Your task to perform on an android device: Open location settings Image 0: 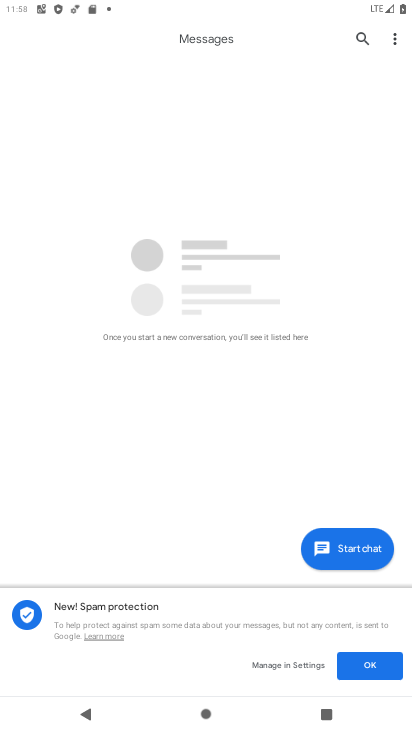
Step 0: press home button
Your task to perform on an android device: Open location settings Image 1: 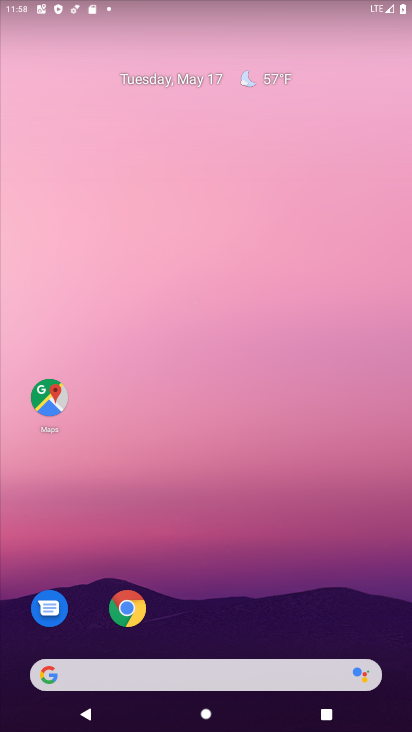
Step 1: drag from (273, 517) to (202, 167)
Your task to perform on an android device: Open location settings Image 2: 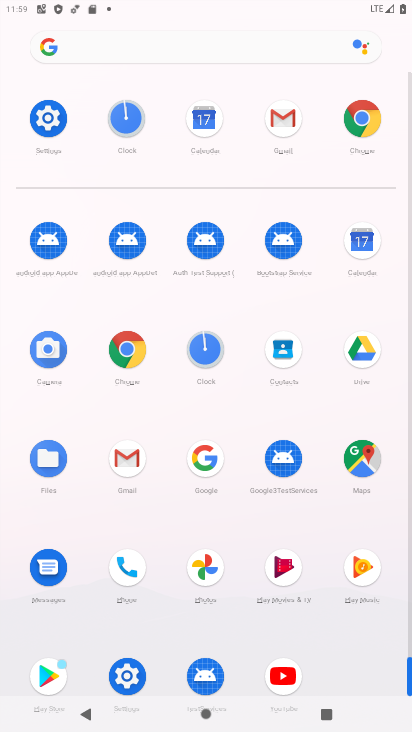
Step 2: click (123, 675)
Your task to perform on an android device: Open location settings Image 3: 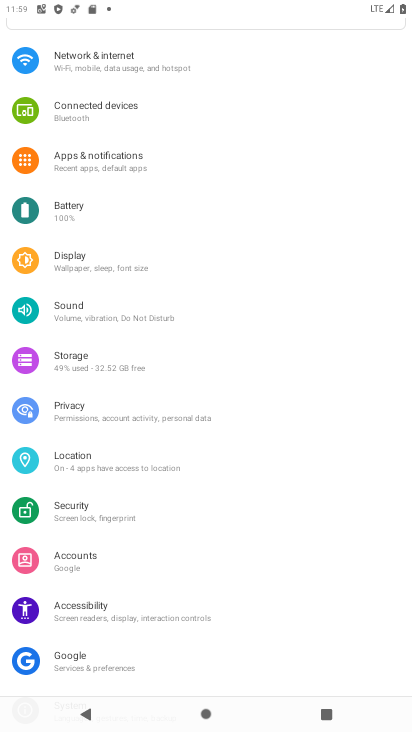
Step 3: click (78, 450)
Your task to perform on an android device: Open location settings Image 4: 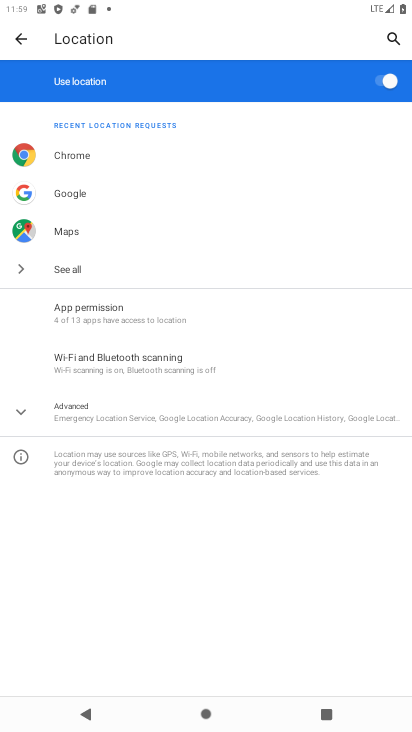
Step 4: task complete